Your task to perform on an android device: Open Google Maps Image 0: 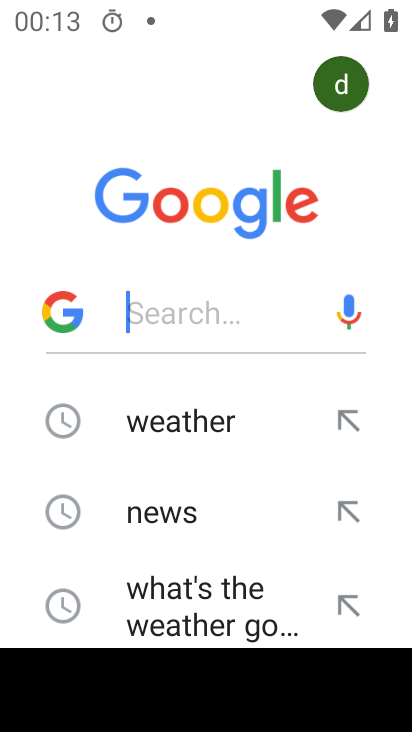
Step 0: press home button
Your task to perform on an android device: Open Google Maps Image 1: 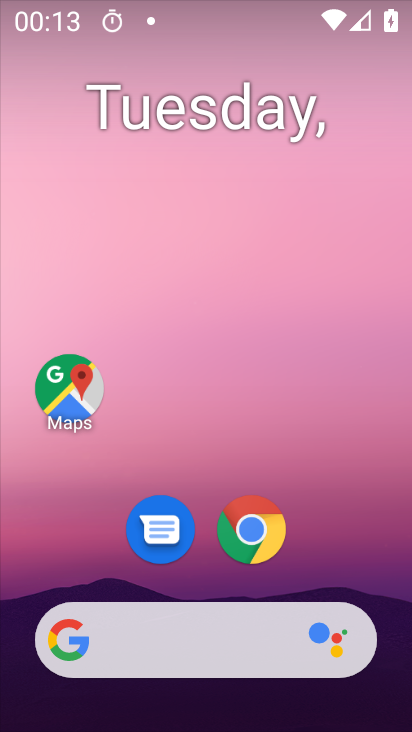
Step 1: click (58, 406)
Your task to perform on an android device: Open Google Maps Image 2: 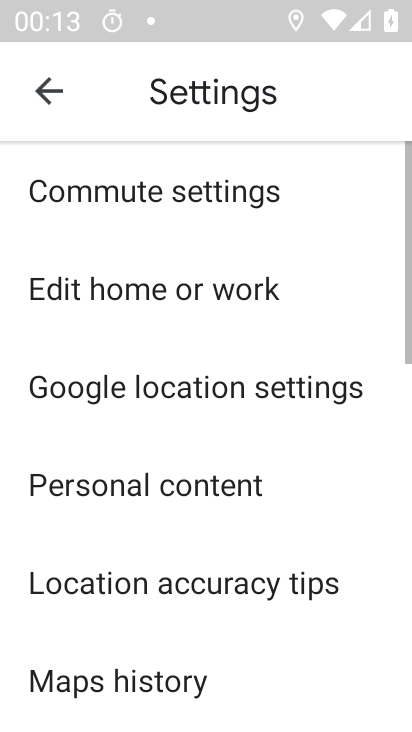
Step 2: task complete